Your task to perform on an android device: install app "Truecaller" Image 0: 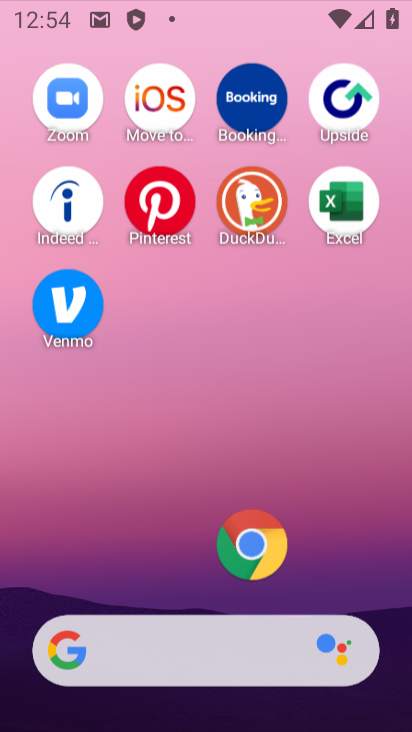
Step 0: press home button
Your task to perform on an android device: install app "Truecaller" Image 1: 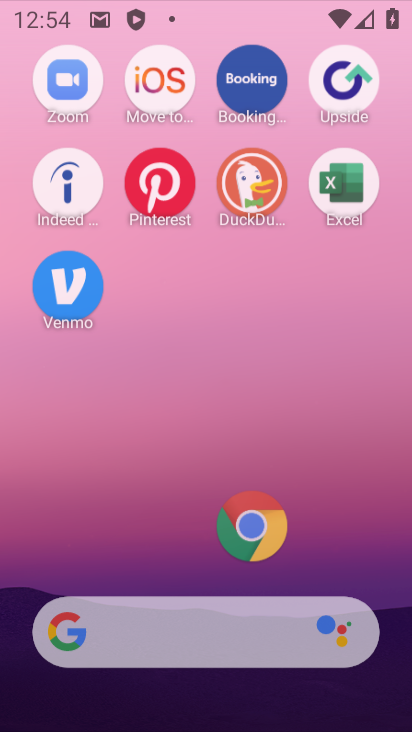
Step 1: drag from (90, 537) to (205, 31)
Your task to perform on an android device: install app "Truecaller" Image 2: 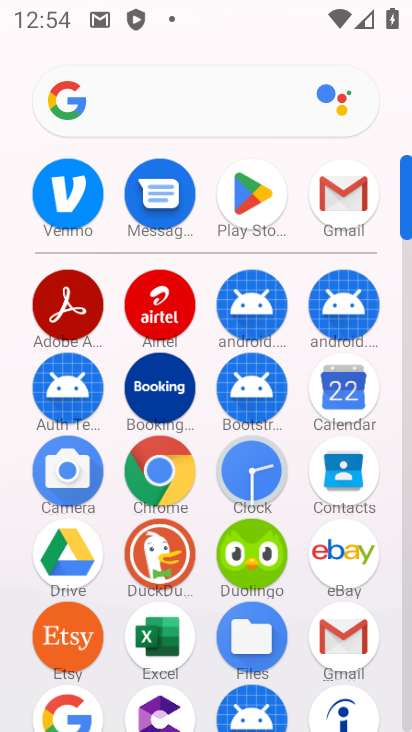
Step 2: click (256, 216)
Your task to perform on an android device: install app "Truecaller" Image 3: 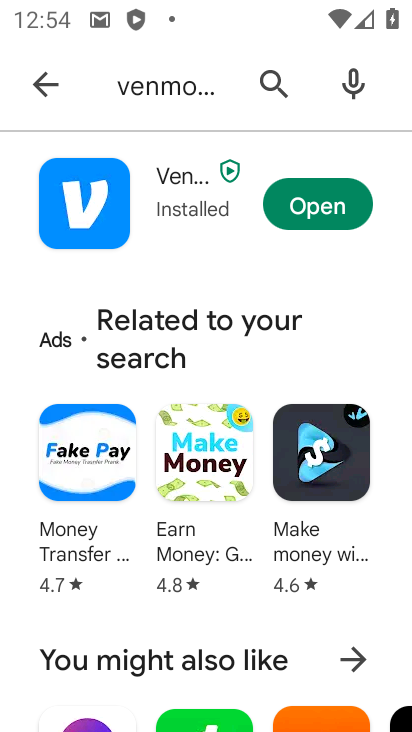
Step 3: click (281, 88)
Your task to perform on an android device: install app "Truecaller" Image 4: 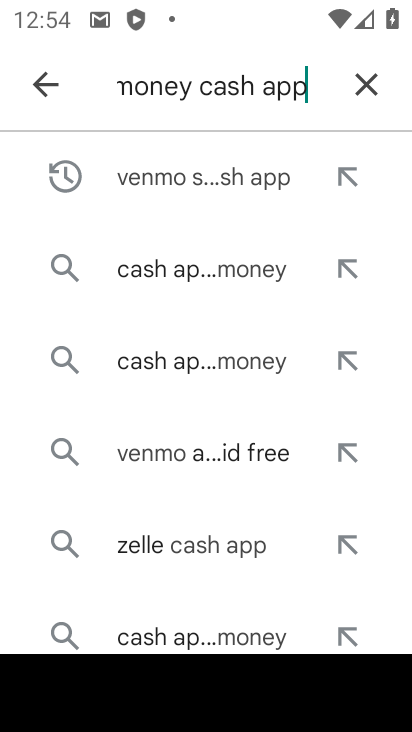
Step 4: click (361, 84)
Your task to perform on an android device: install app "Truecaller" Image 5: 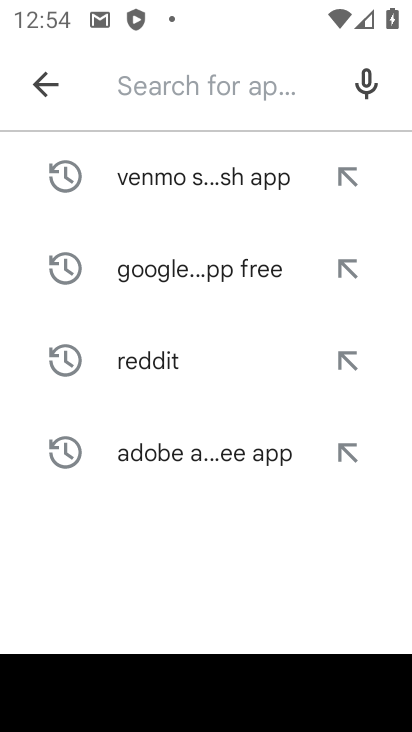
Step 5: click (136, 90)
Your task to perform on an android device: install app "Truecaller" Image 6: 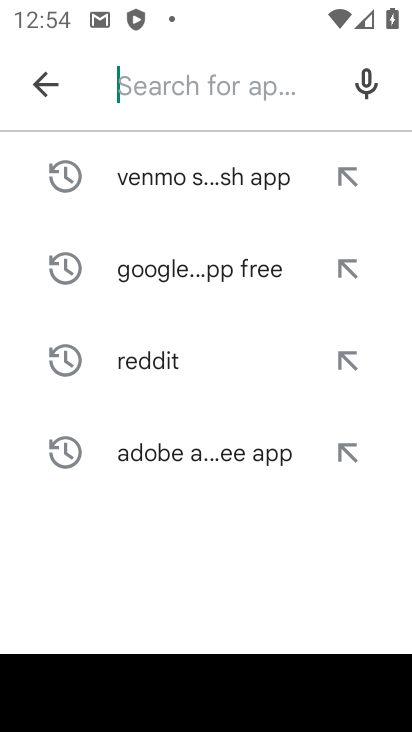
Step 6: click (176, 95)
Your task to perform on an android device: install app "Truecaller" Image 7: 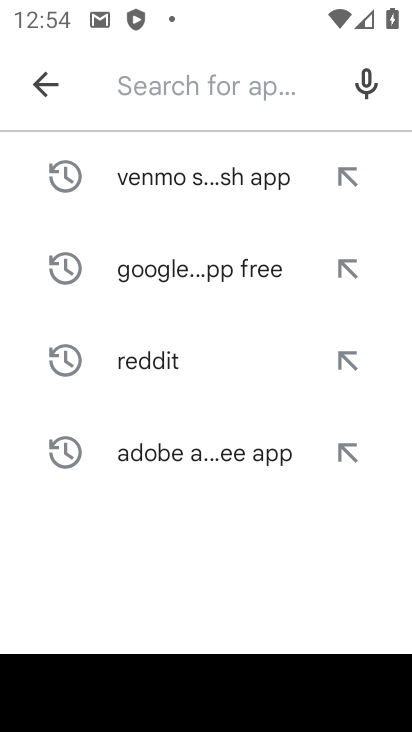
Step 7: type "Truecaller"
Your task to perform on an android device: install app "Truecaller" Image 8: 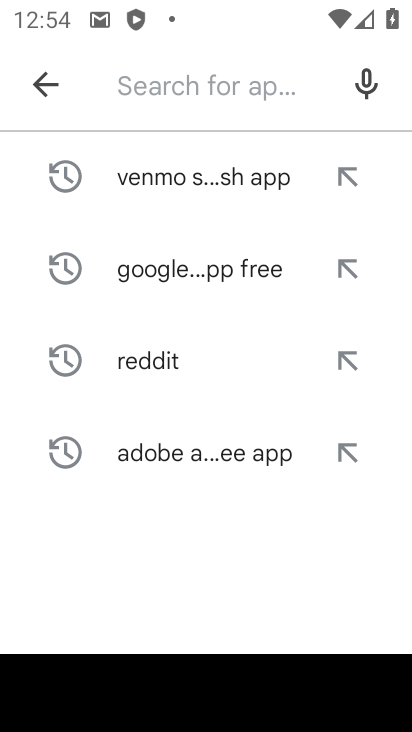
Step 8: click (251, 535)
Your task to perform on an android device: install app "Truecaller" Image 9: 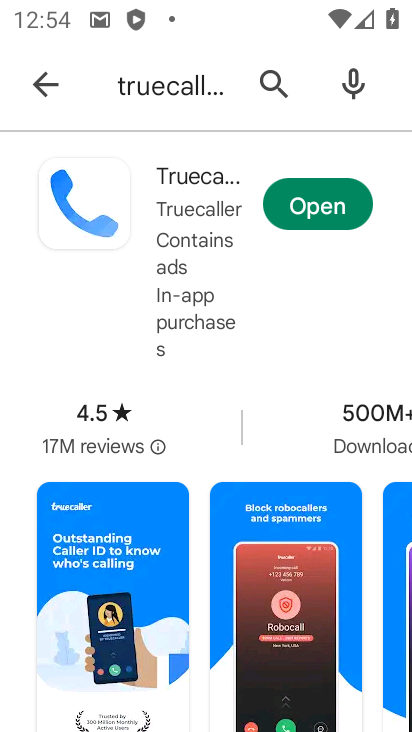
Step 9: task complete